Your task to perform on an android device: all mails in gmail Image 0: 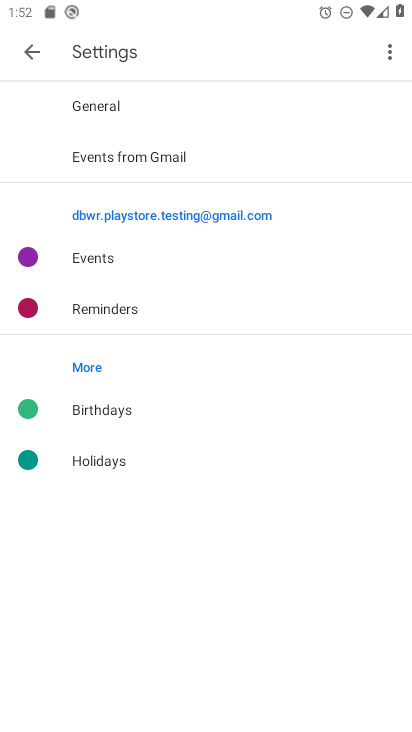
Step 0: press home button
Your task to perform on an android device: all mails in gmail Image 1: 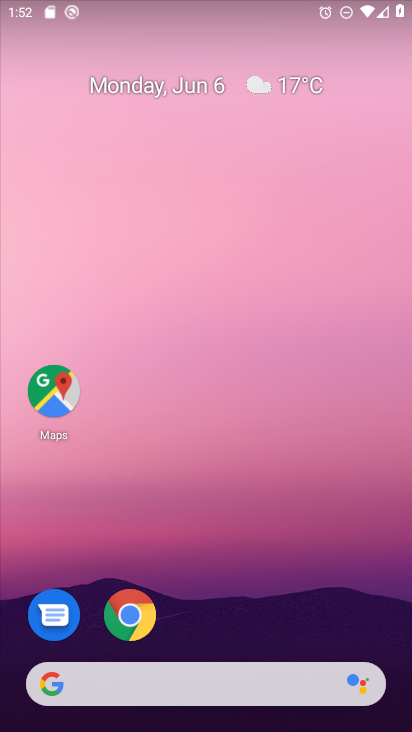
Step 1: drag from (285, 440) to (283, 0)
Your task to perform on an android device: all mails in gmail Image 2: 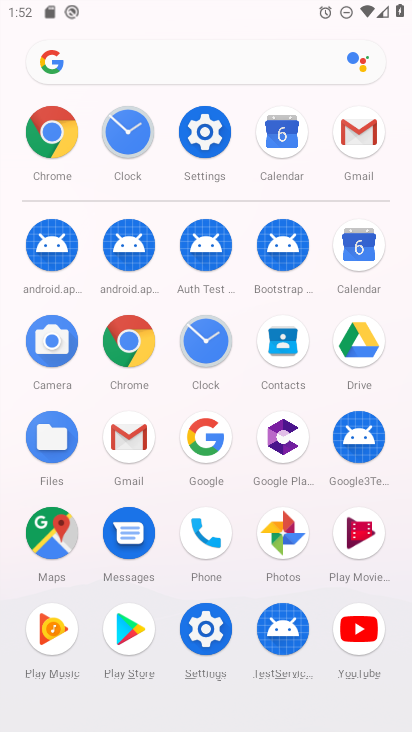
Step 2: click (131, 443)
Your task to perform on an android device: all mails in gmail Image 3: 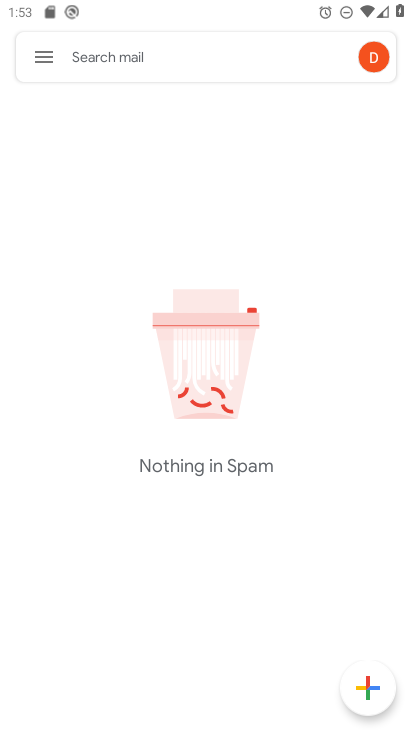
Step 3: click (48, 63)
Your task to perform on an android device: all mails in gmail Image 4: 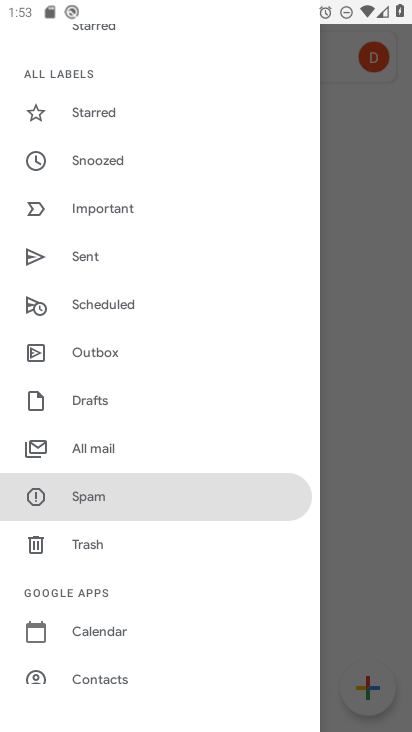
Step 4: click (112, 433)
Your task to perform on an android device: all mails in gmail Image 5: 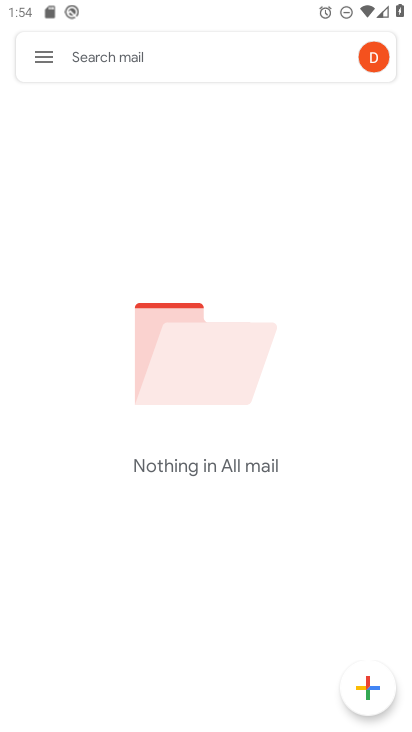
Step 5: task complete